Your task to perform on an android device: Go to Wikipedia Image 0: 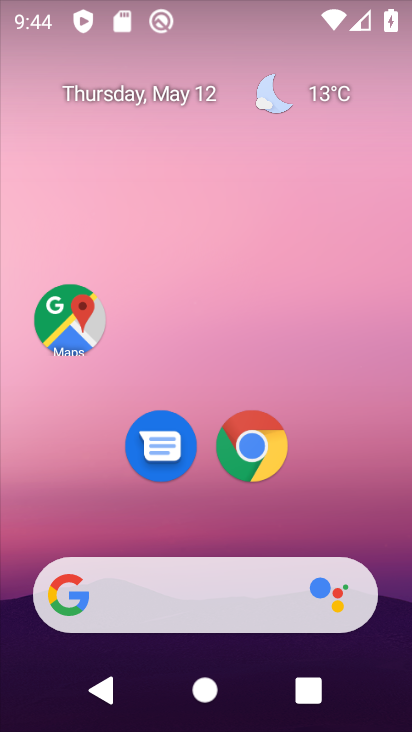
Step 0: drag from (242, 558) to (366, 128)
Your task to perform on an android device: Go to Wikipedia Image 1: 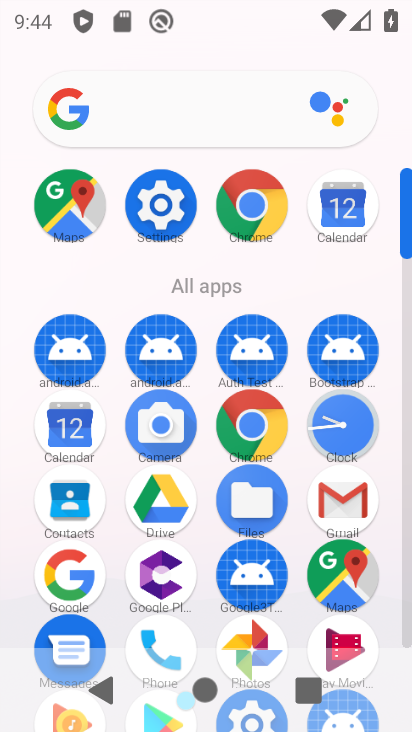
Step 1: click (266, 414)
Your task to perform on an android device: Go to Wikipedia Image 2: 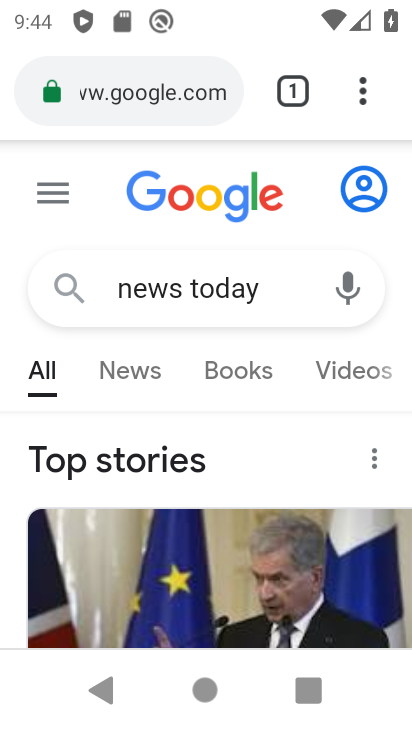
Step 2: click (190, 93)
Your task to perform on an android device: Go to Wikipedia Image 3: 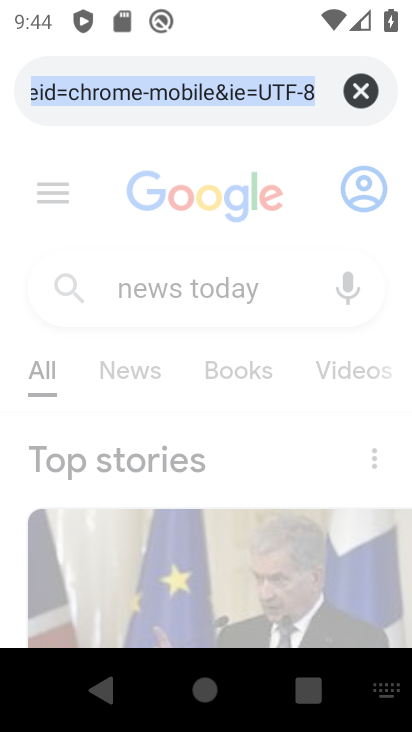
Step 3: click (363, 83)
Your task to perform on an android device: Go to Wikipedia Image 4: 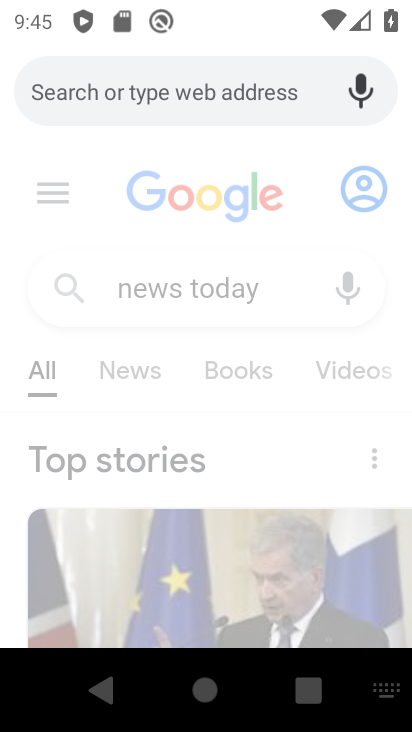
Step 4: type "wikipedia"
Your task to perform on an android device: Go to Wikipedia Image 5: 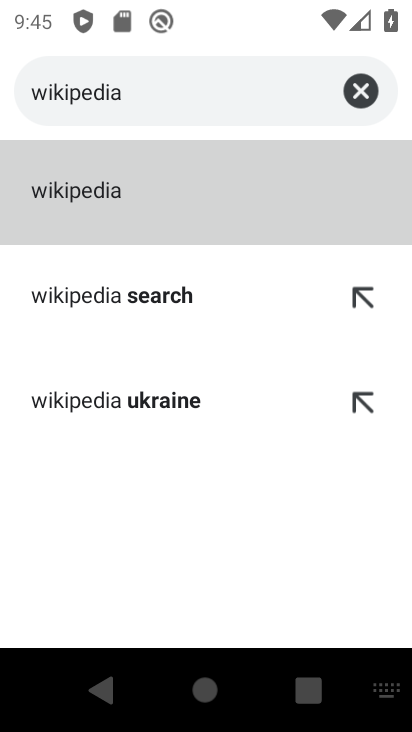
Step 5: click (337, 204)
Your task to perform on an android device: Go to Wikipedia Image 6: 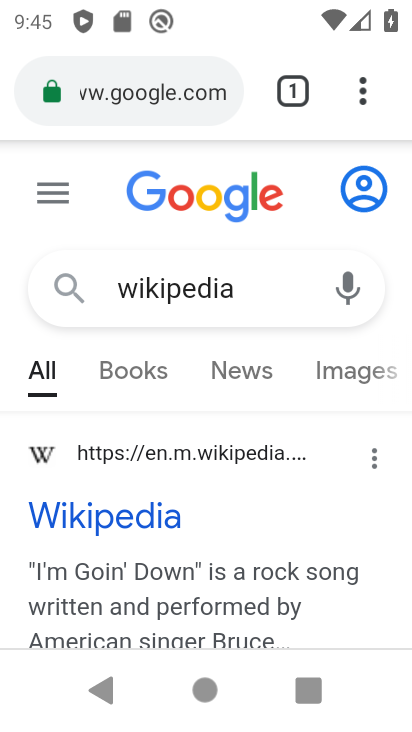
Step 6: task complete